Your task to perform on an android device: open app "HBO Max: Stream TV & Movies" (install if not already installed) Image 0: 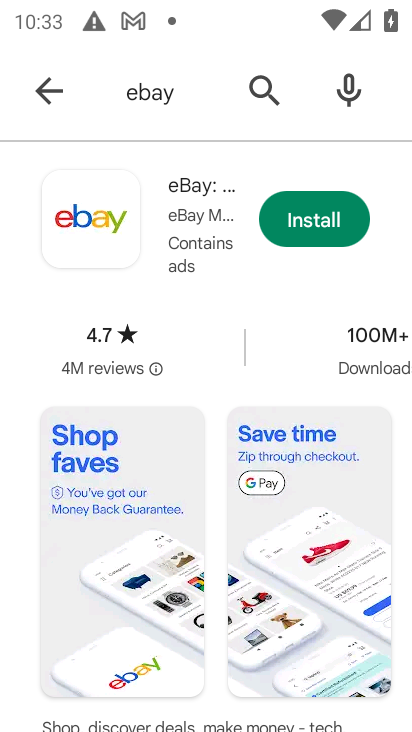
Step 0: click (263, 96)
Your task to perform on an android device: open app "HBO Max: Stream TV & Movies" (install if not already installed) Image 1: 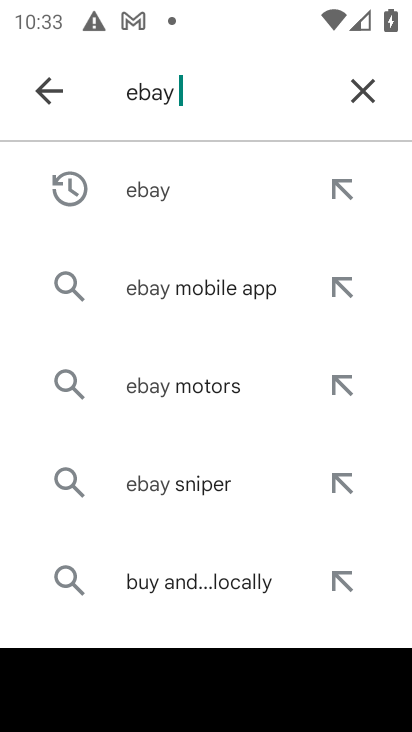
Step 1: click (375, 98)
Your task to perform on an android device: open app "HBO Max: Stream TV & Movies" (install if not already installed) Image 2: 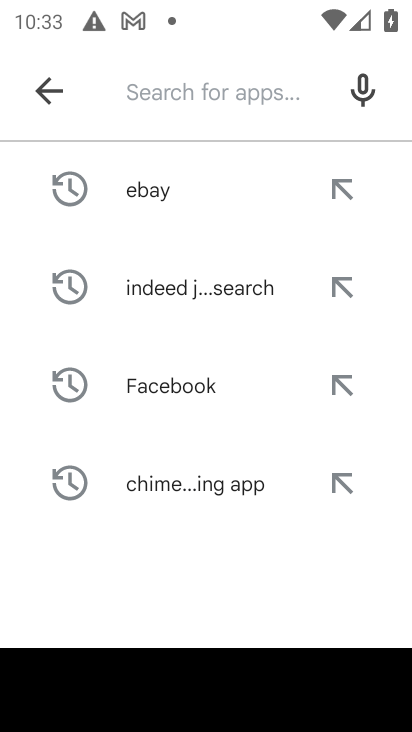
Step 2: type "HBO Max: Stream TV & Movies"
Your task to perform on an android device: open app "HBO Max: Stream TV & Movies" (install if not already installed) Image 3: 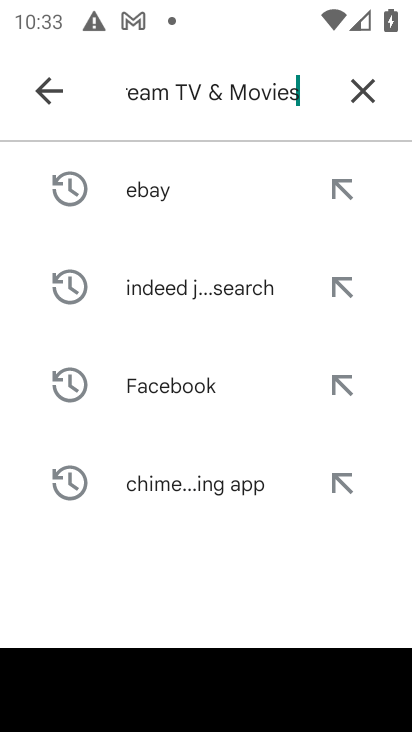
Step 3: type ""
Your task to perform on an android device: open app "HBO Max: Stream TV & Movies" (install if not already installed) Image 4: 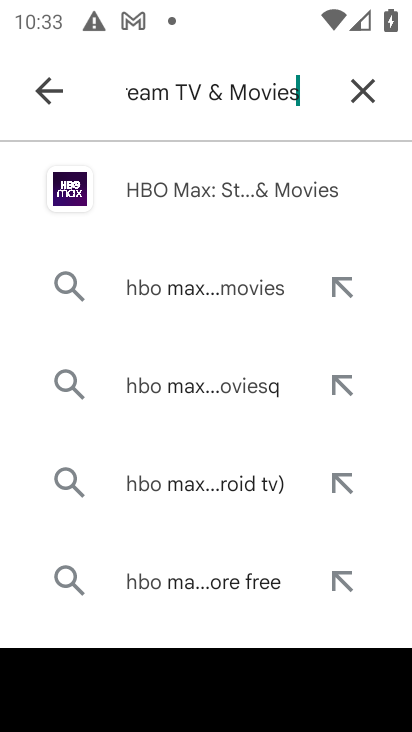
Step 4: click (293, 189)
Your task to perform on an android device: open app "HBO Max: Stream TV & Movies" (install if not already installed) Image 5: 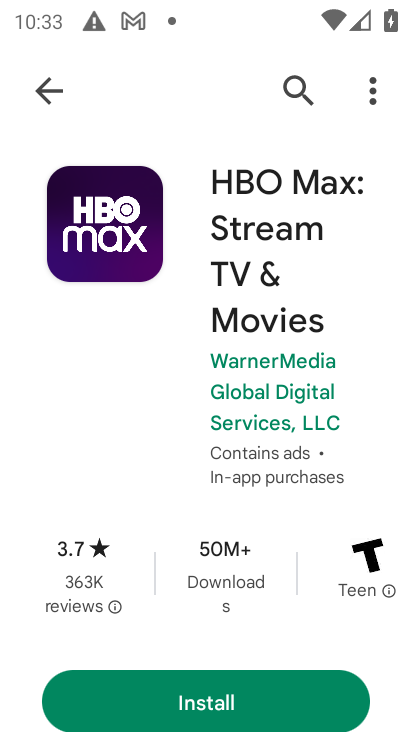
Step 5: click (279, 694)
Your task to perform on an android device: open app "HBO Max: Stream TV & Movies" (install if not already installed) Image 6: 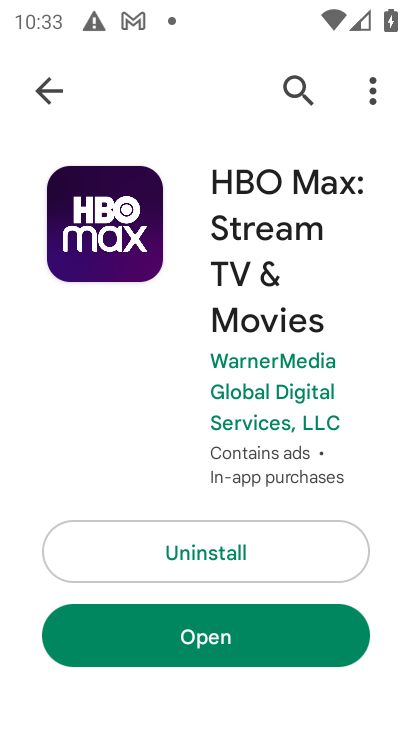
Step 6: click (243, 654)
Your task to perform on an android device: open app "HBO Max: Stream TV & Movies" (install if not already installed) Image 7: 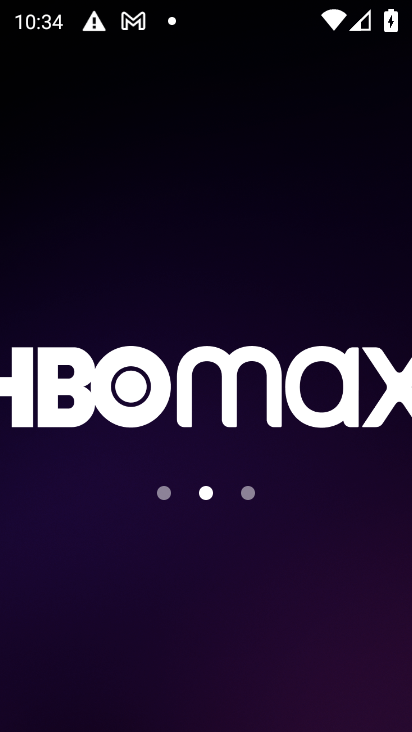
Step 7: task complete